Your task to perform on an android device: turn smart compose on in the gmail app Image 0: 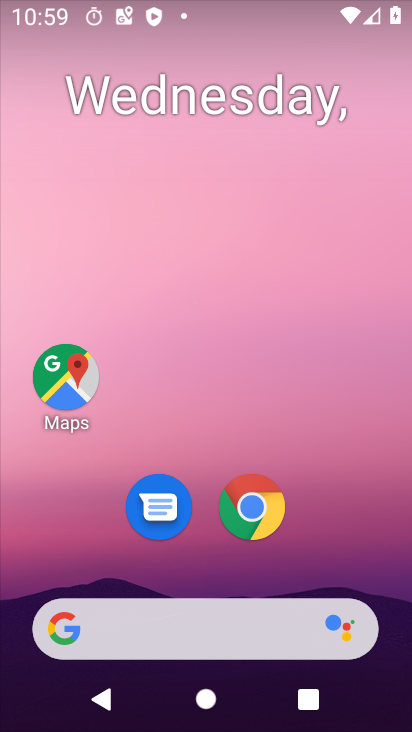
Step 0: drag from (241, 718) to (241, 76)
Your task to perform on an android device: turn smart compose on in the gmail app Image 1: 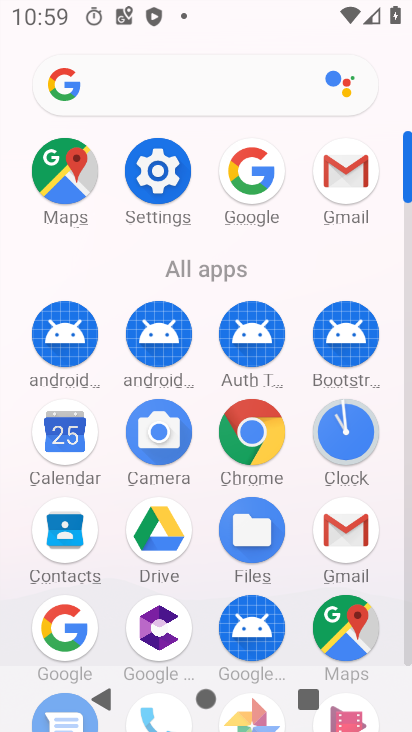
Step 1: click (354, 529)
Your task to perform on an android device: turn smart compose on in the gmail app Image 2: 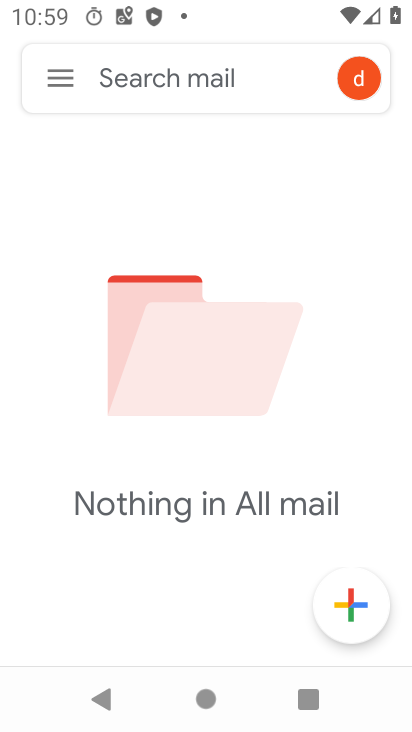
Step 2: click (64, 76)
Your task to perform on an android device: turn smart compose on in the gmail app Image 3: 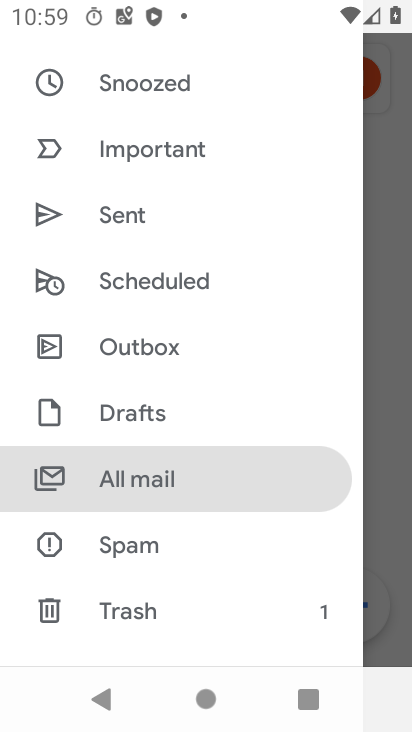
Step 3: drag from (192, 620) to (193, 245)
Your task to perform on an android device: turn smart compose on in the gmail app Image 4: 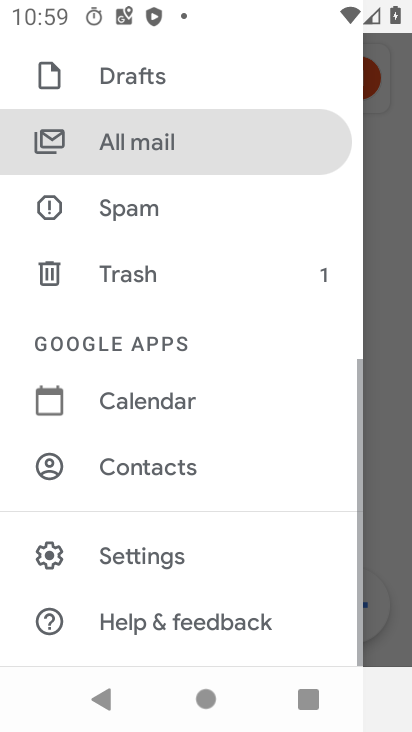
Step 4: click (135, 550)
Your task to perform on an android device: turn smart compose on in the gmail app Image 5: 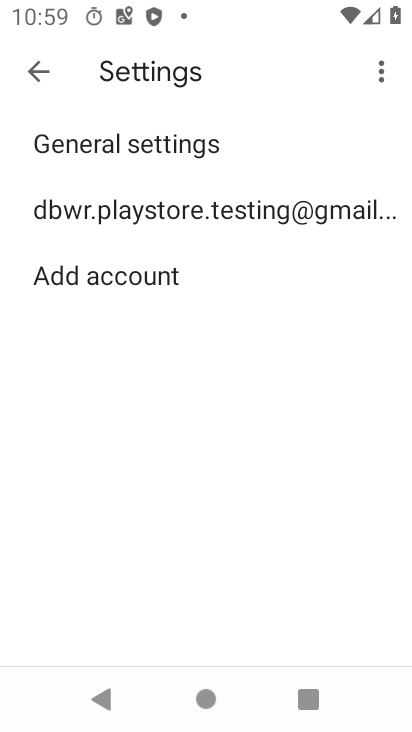
Step 5: click (183, 213)
Your task to perform on an android device: turn smart compose on in the gmail app Image 6: 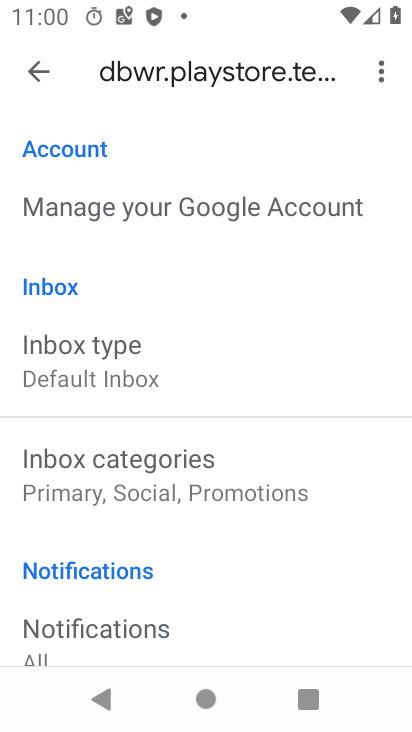
Step 6: task complete